Your task to perform on an android device: change keyboard looks Image 0: 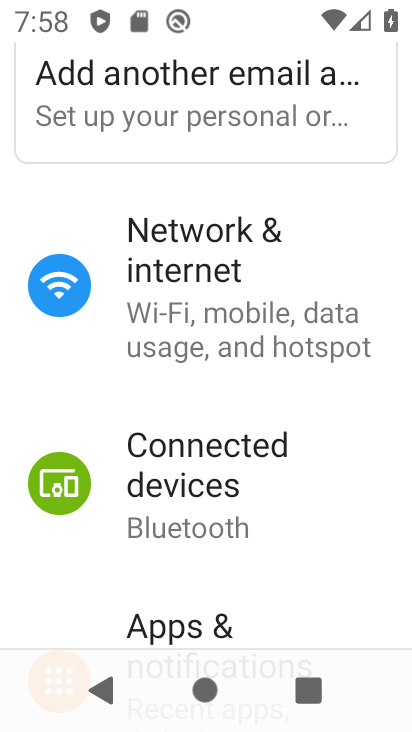
Step 0: drag from (303, 504) to (286, 8)
Your task to perform on an android device: change keyboard looks Image 1: 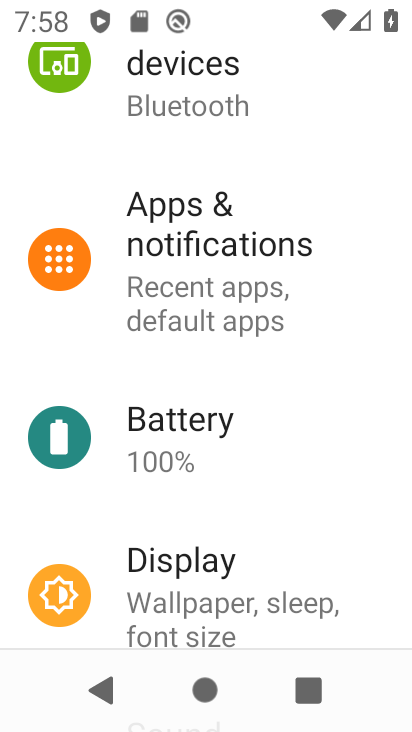
Step 1: drag from (206, 414) to (216, 22)
Your task to perform on an android device: change keyboard looks Image 2: 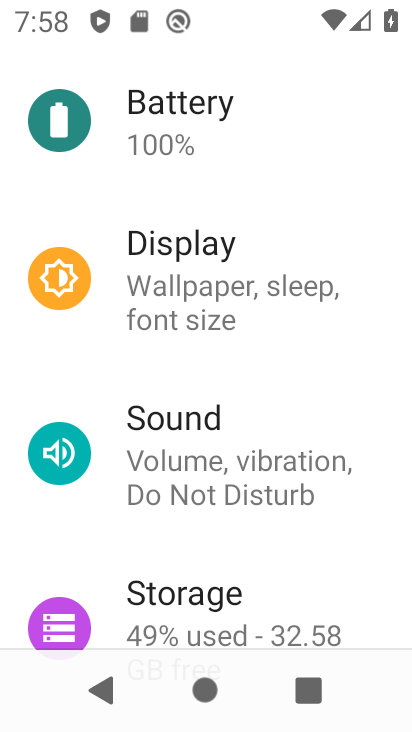
Step 2: drag from (245, 436) to (230, 9)
Your task to perform on an android device: change keyboard looks Image 3: 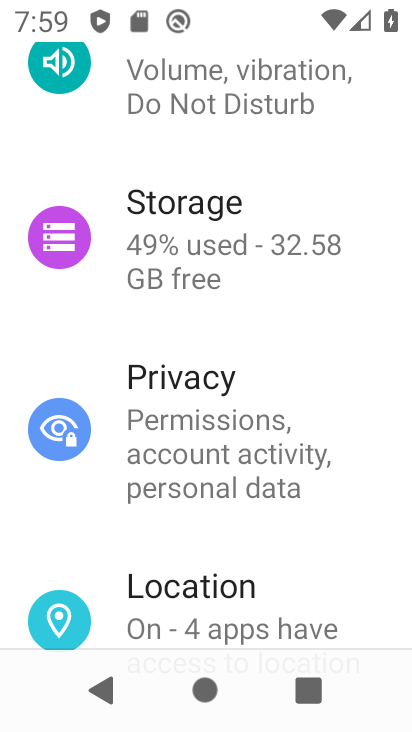
Step 3: drag from (266, 469) to (233, 116)
Your task to perform on an android device: change keyboard looks Image 4: 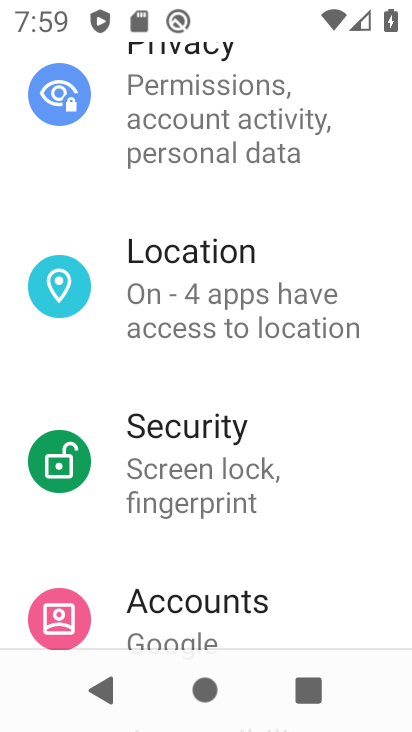
Step 4: drag from (204, 396) to (205, 41)
Your task to perform on an android device: change keyboard looks Image 5: 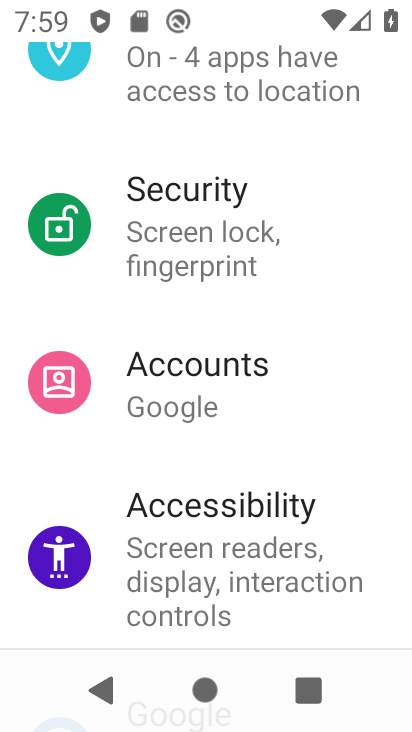
Step 5: drag from (136, 480) to (177, 69)
Your task to perform on an android device: change keyboard looks Image 6: 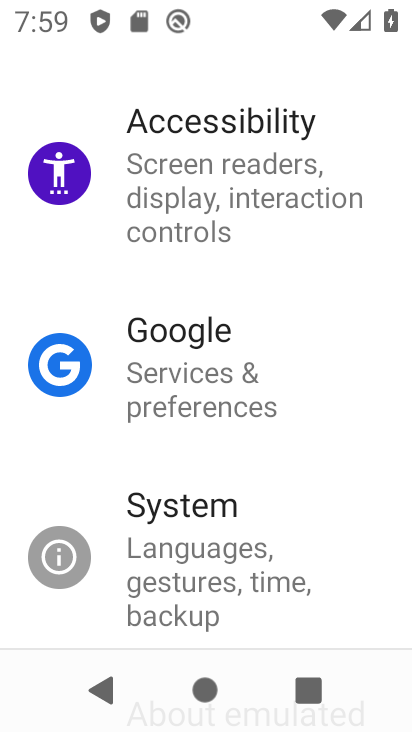
Step 6: click (223, 547)
Your task to perform on an android device: change keyboard looks Image 7: 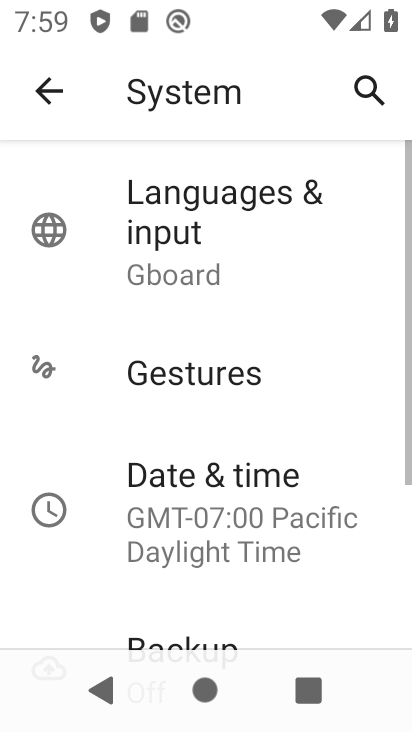
Step 7: click (221, 263)
Your task to perform on an android device: change keyboard looks Image 8: 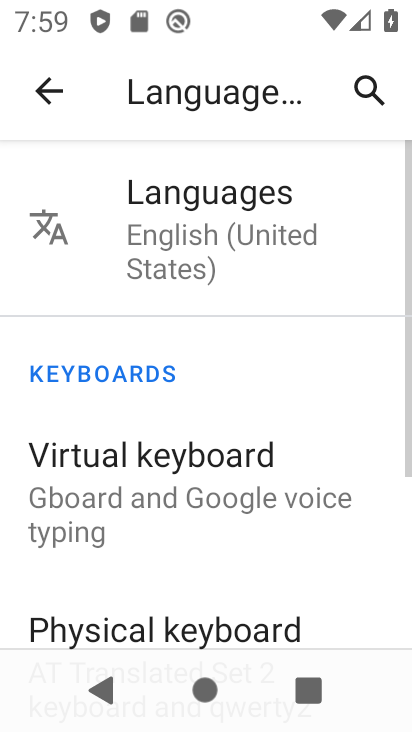
Step 8: click (211, 473)
Your task to perform on an android device: change keyboard looks Image 9: 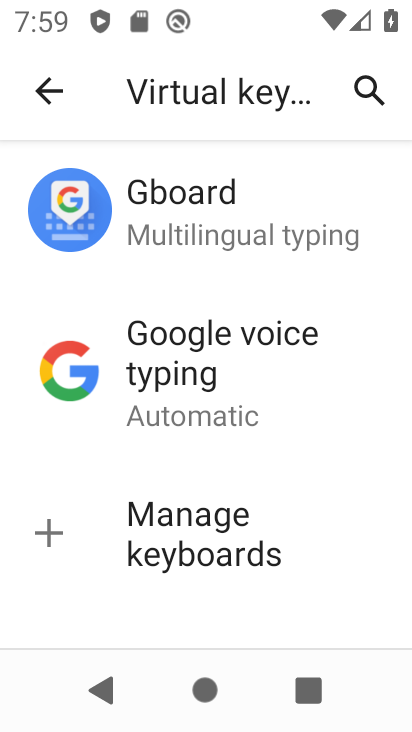
Step 9: click (214, 203)
Your task to perform on an android device: change keyboard looks Image 10: 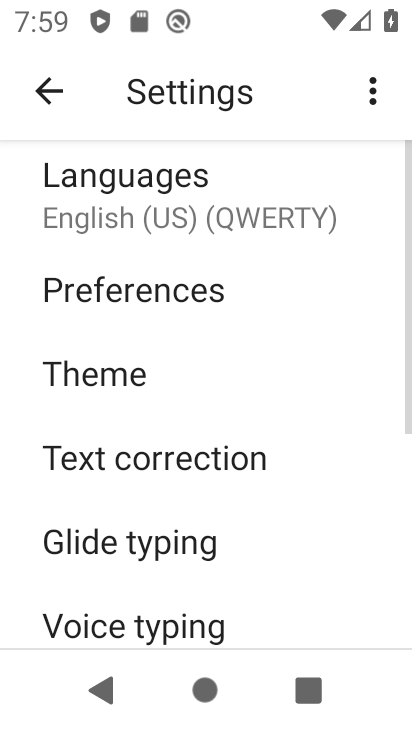
Step 10: click (87, 216)
Your task to perform on an android device: change keyboard looks Image 11: 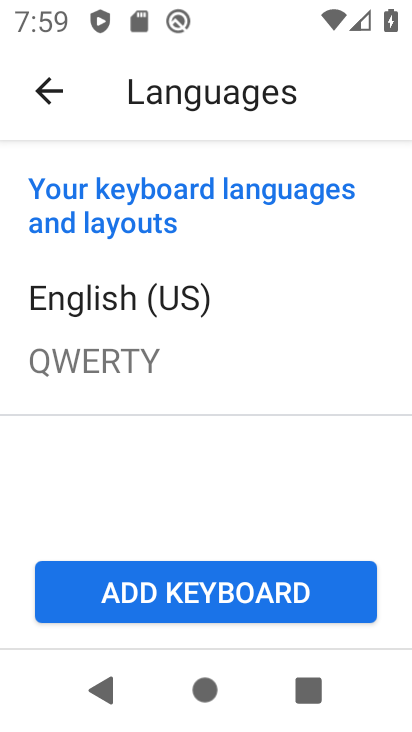
Step 11: click (60, 100)
Your task to perform on an android device: change keyboard looks Image 12: 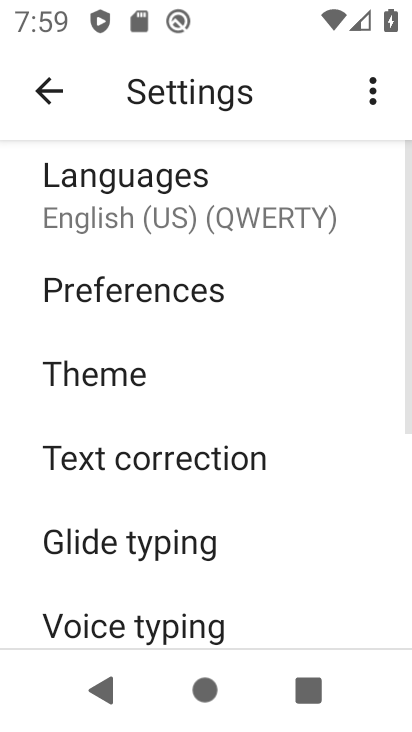
Step 12: click (154, 368)
Your task to perform on an android device: change keyboard looks Image 13: 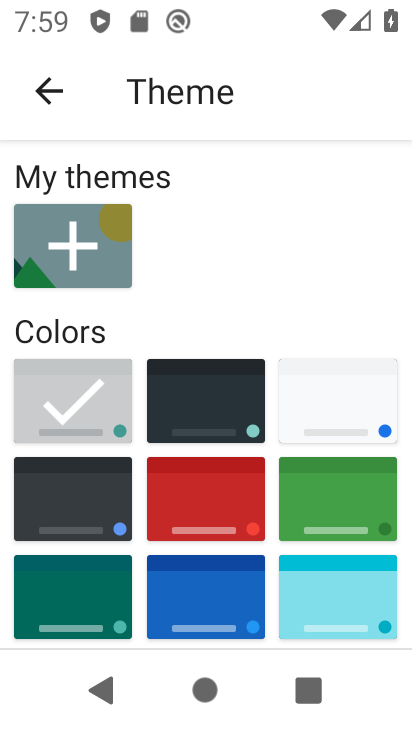
Step 13: click (105, 489)
Your task to perform on an android device: change keyboard looks Image 14: 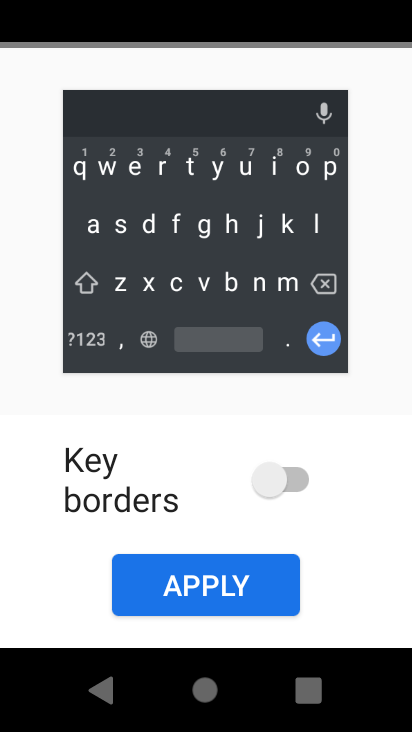
Step 14: click (186, 568)
Your task to perform on an android device: change keyboard looks Image 15: 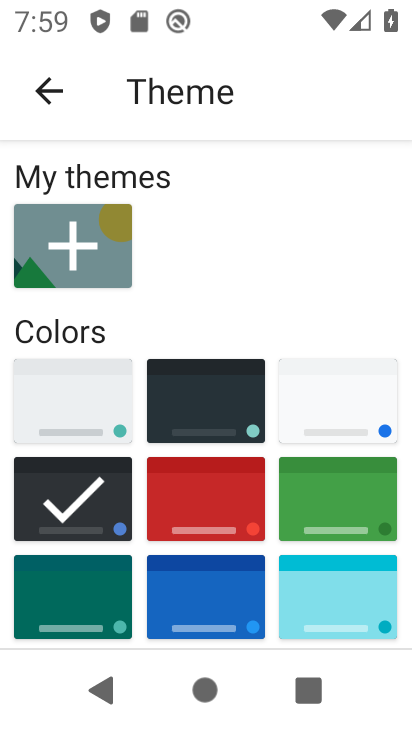
Step 15: task complete